Your task to perform on an android device: Show me recent news Image 0: 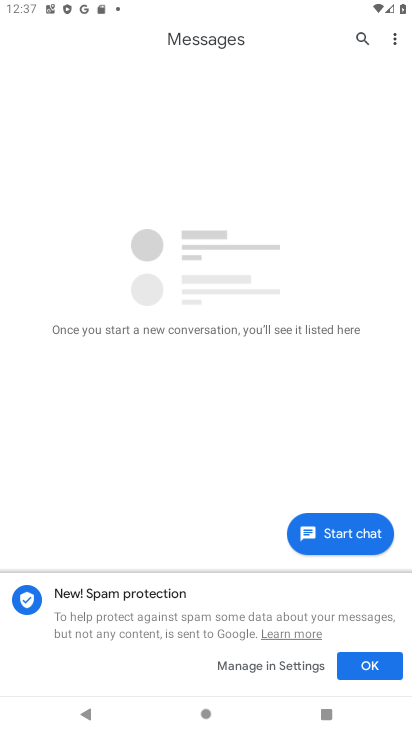
Step 0: press home button
Your task to perform on an android device: Show me recent news Image 1: 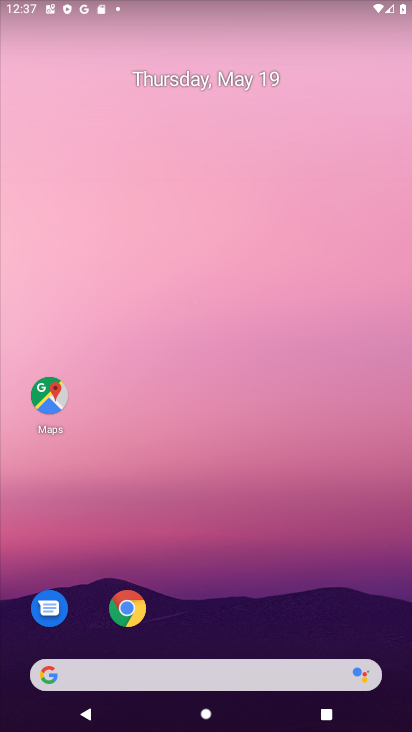
Step 1: drag from (238, 611) to (304, 215)
Your task to perform on an android device: Show me recent news Image 2: 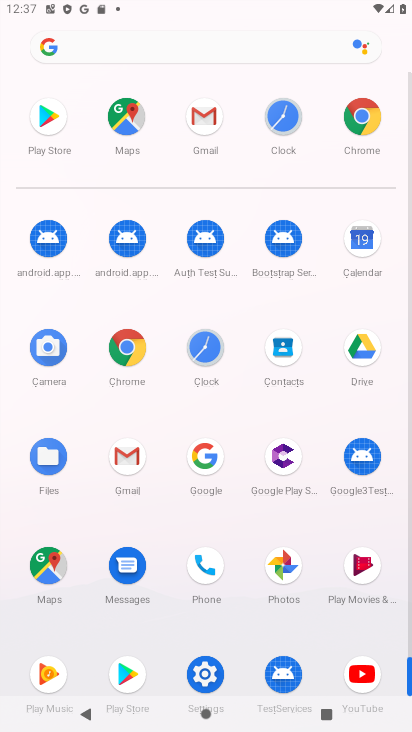
Step 2: click (123, 357)
Your task to perform on an android device: Show me recent news Image 3: 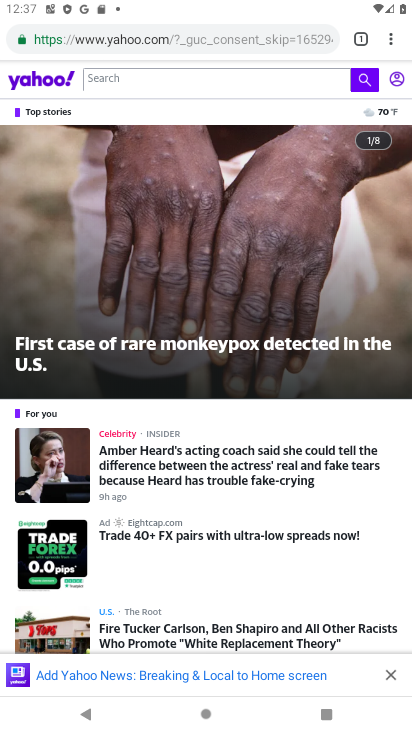
Step 3: click (398, 39)
Your task to perform on an android device: Show me recent news Image 4: 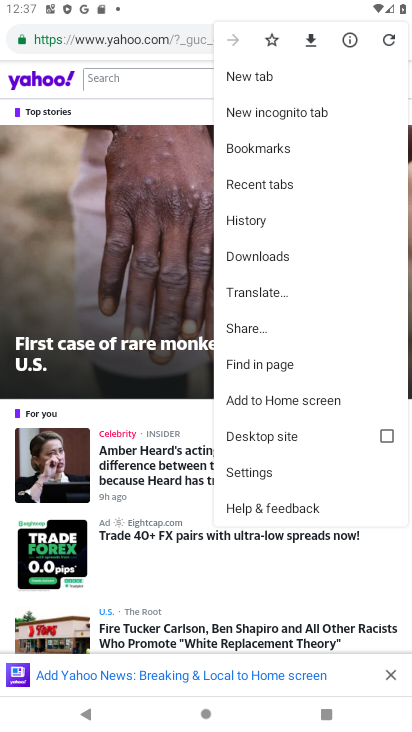
Step 4: click (271, 79)
Your task to perform on an android device: Show me recent news Image 5: 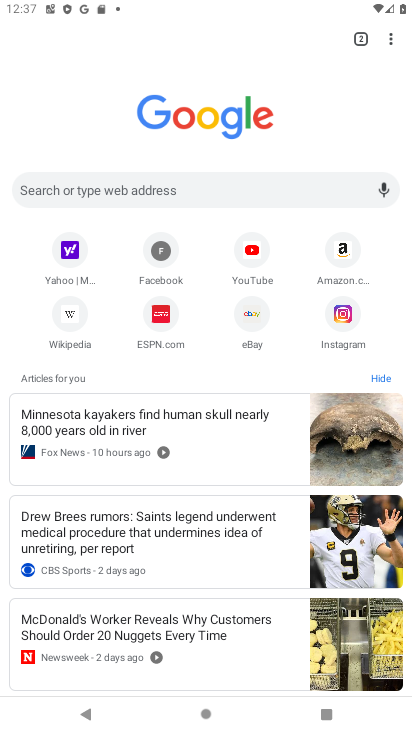
Step 5: click (273, 184)
Your task to perform on an android device: Show me recent news Image 6: 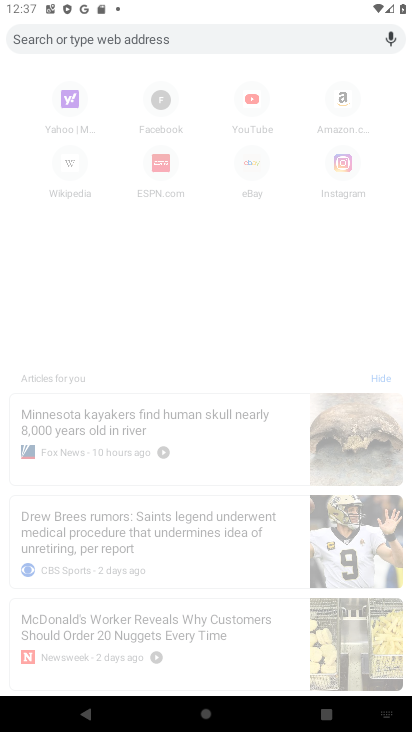
Step 6: type "Show me recent news"
Your task to perform on an android device: Show me recent news Image 7: 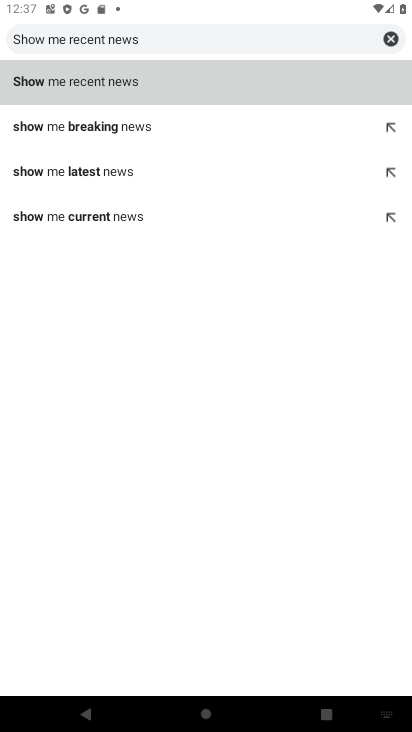
Step 7: click (151, 80)
Your task to perform on an android device: Show me recent news Image 8: 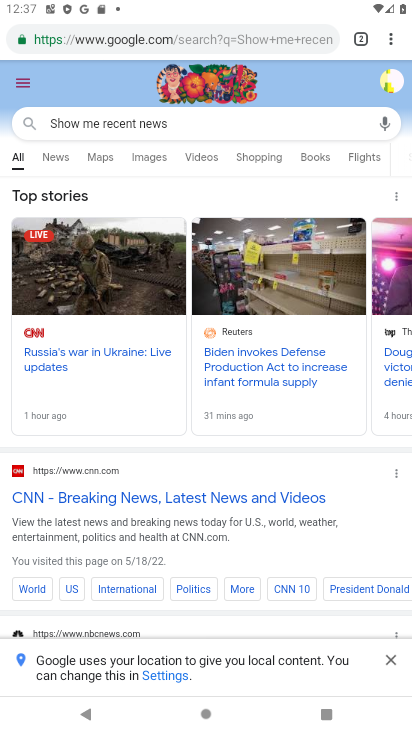
Step 8: task complete